Your task to perform on an android device: see sites visited before in the chrome app Image 0: 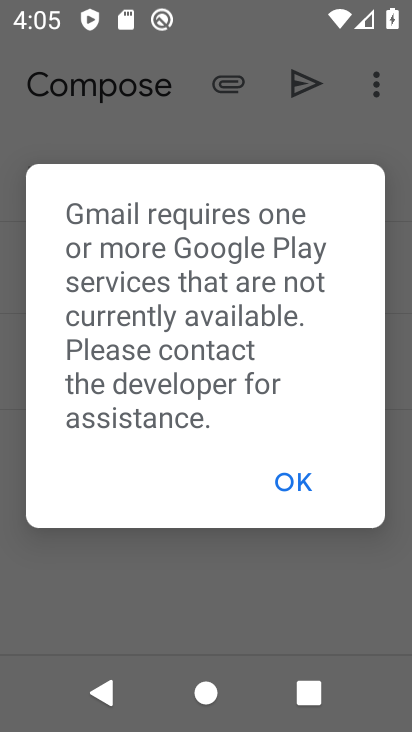
Step 0: press home button
Your task to perform on an android device: see sites visited before in the chrome app Image 1: 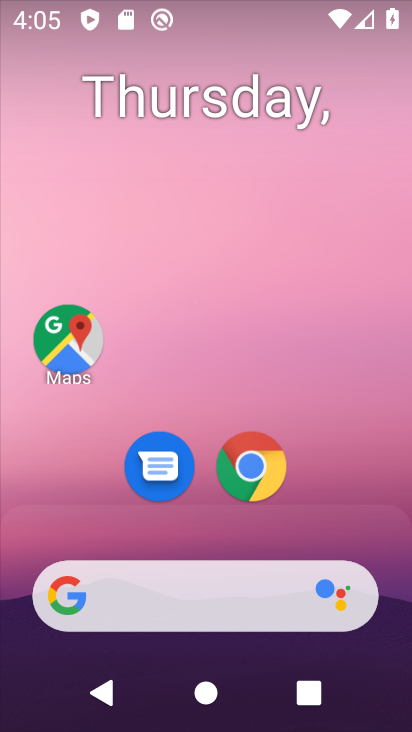
Step 1: click (246, 466)
Your task to perform on an android device: see sites visited before in the chrome app Image 2: 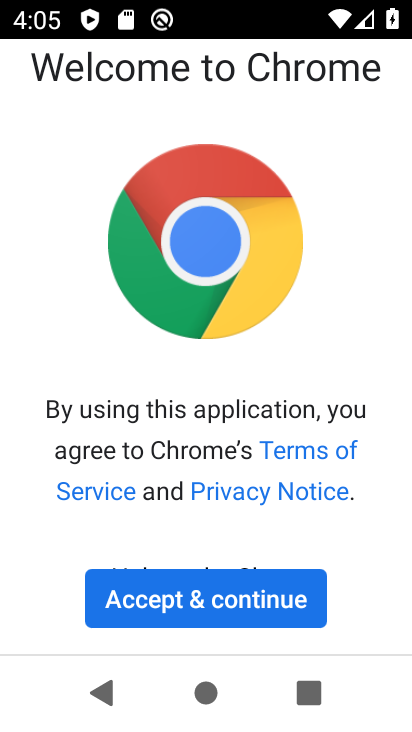
Step 2: click (199, 602)
Your task to perform on an android device: see sites visited before in the chrome app Image 3: 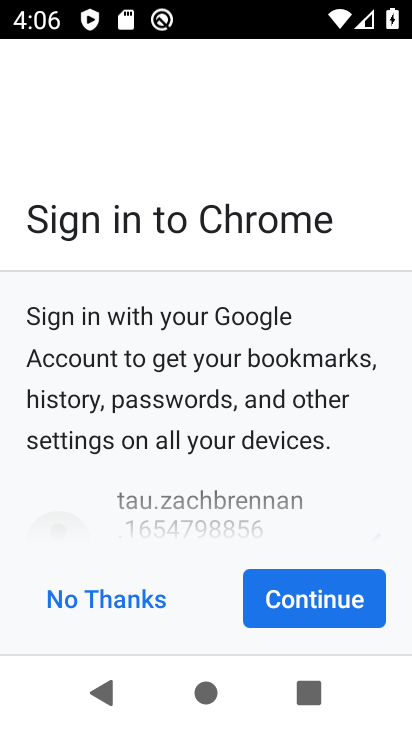
Step 3: click (307, 595)
Your task to perform on an android device: see sites visited before in the chrome app Image 4: 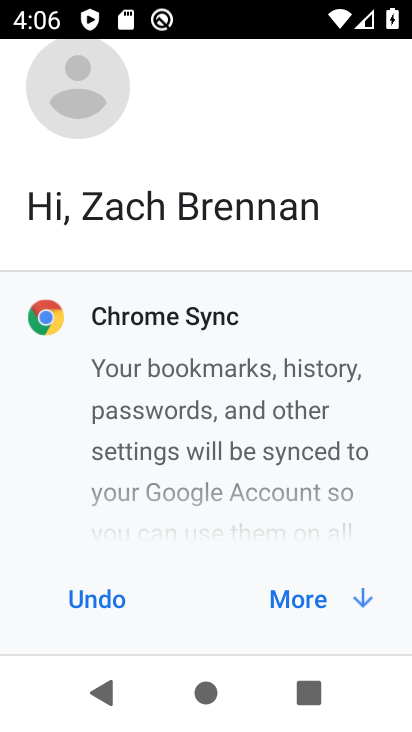
Step 4: click (307, 595)
Your task to perform on an android device: see sites visited before in the chrome app Image 5: 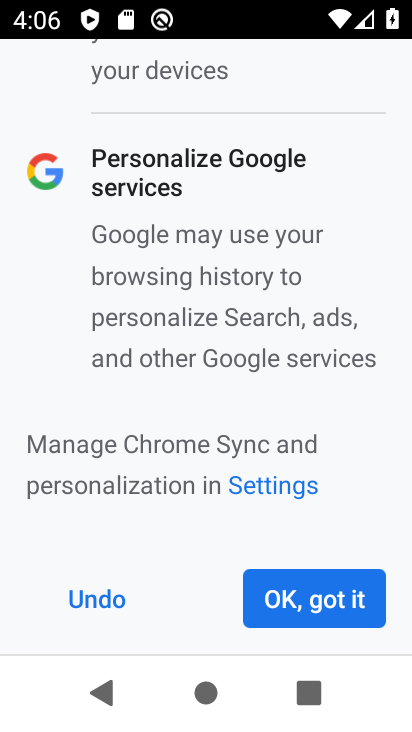
Step 5: click (307, 595)
Your task to perform on an android device: see sites visited before in the chrome app Image 6: 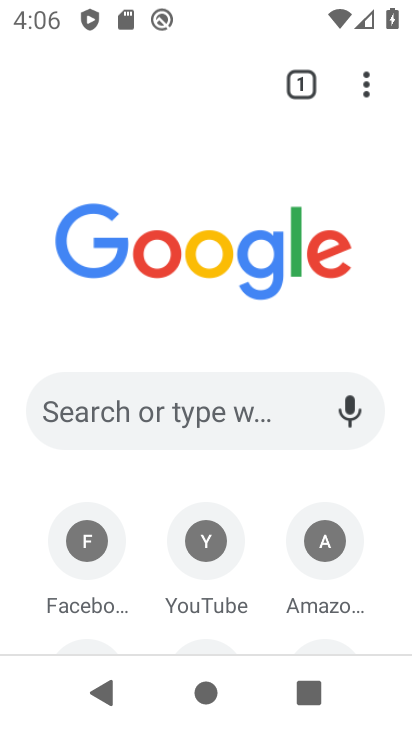
Step 6: task complete